Your task to perform on an android device: Open calendar and show me the second week of next month Image 0: 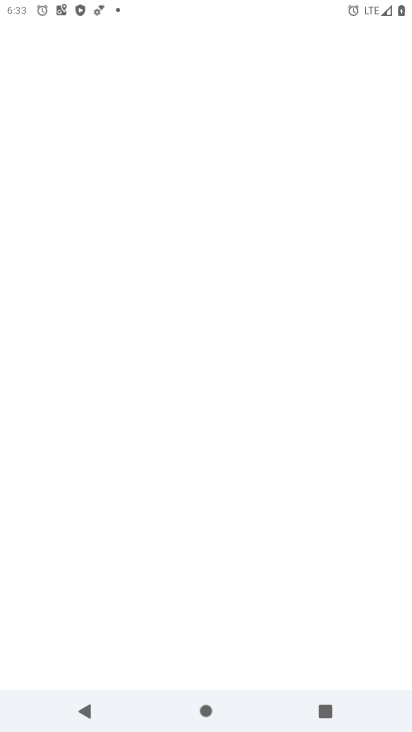
Step 0: drag from (192, 543) to (211, 49)
Your task to perform on an android device: Open calendar and show me the second week of next month Image 1: 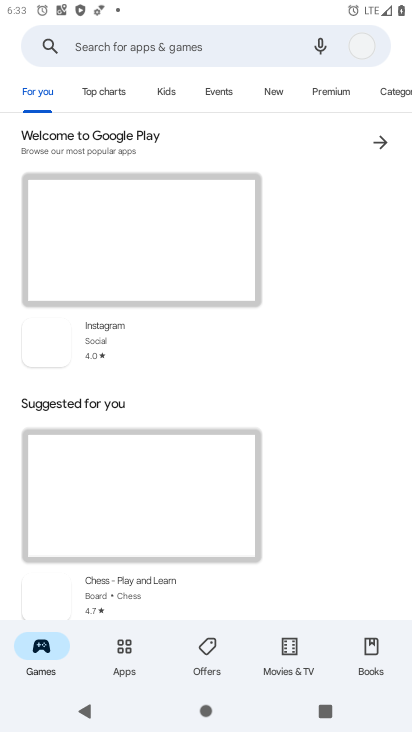
Step 1: press home button
Your task to perform on an android device: Open calendar and show me the second week of next month Image 2: 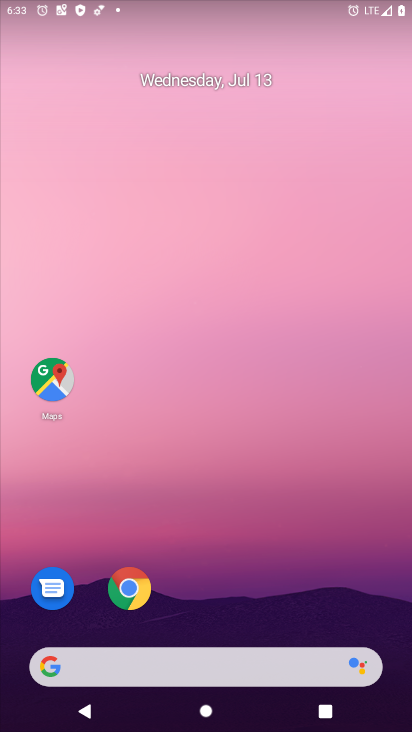
Step 2: drag from (198, 542) to (199, 69)
Your task to perform on an android device: Open calendar and show me the second week of next month Image 3: 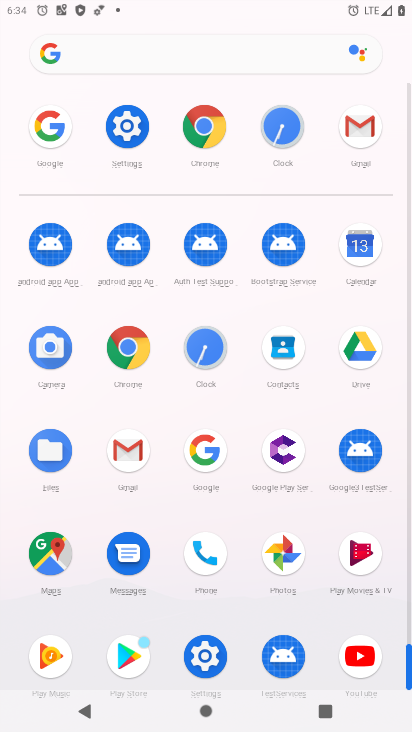
Step 3: click (362, 270)
Your task to perform on an android device: Open calendar and show me the second week of next month Image 4: 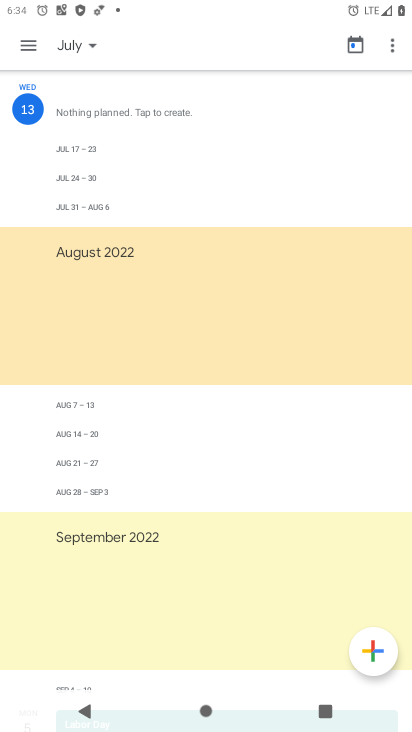
Step 4: click (33, 40)
Your task to perform on an android device: Open calendar and show me the second week of next month Image 5: 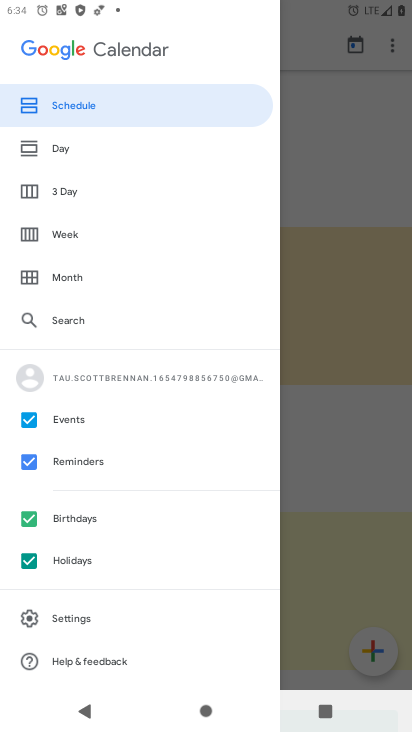
Step 5: click (65, 235)
Your task to perform on an android device: Open calendar and show me the second week of next month Image 6: 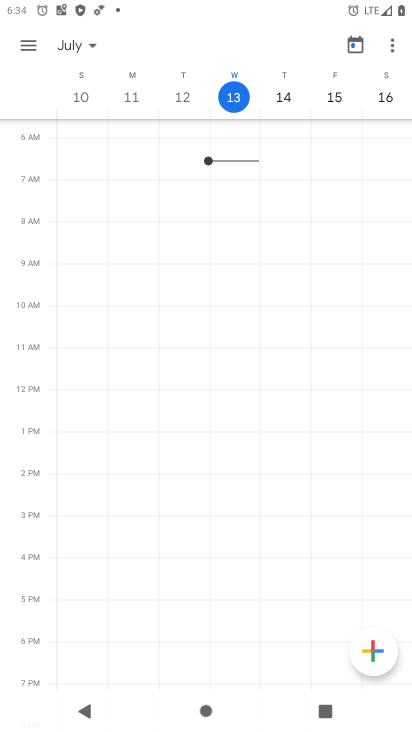
Step 6: click (78, 47)
Your task to perform on an android device: Open calendar and show me the second week of next month Image 7: 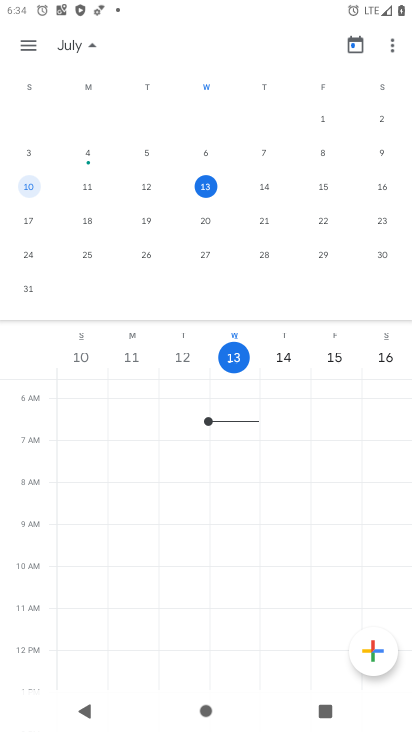
Step 7: drag from (274, 209) to (8, 209)
Your task to perform on an android device: Open calendar and show me the second week of next month Image 8: 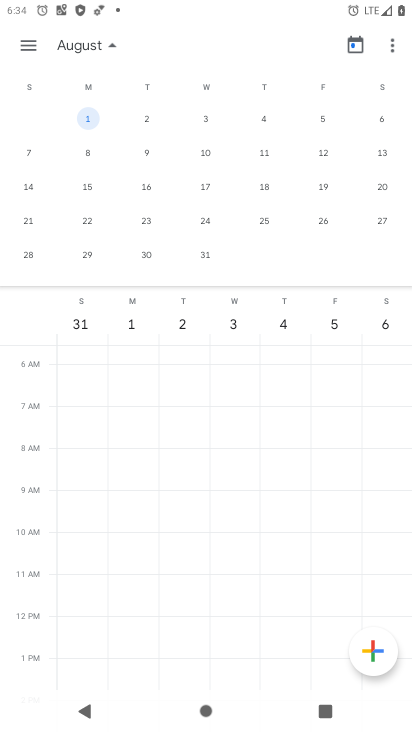
Step 8: click (30, 160)
Your task to perform on an android device: Open calendar and show me the second week of next month Image 9: 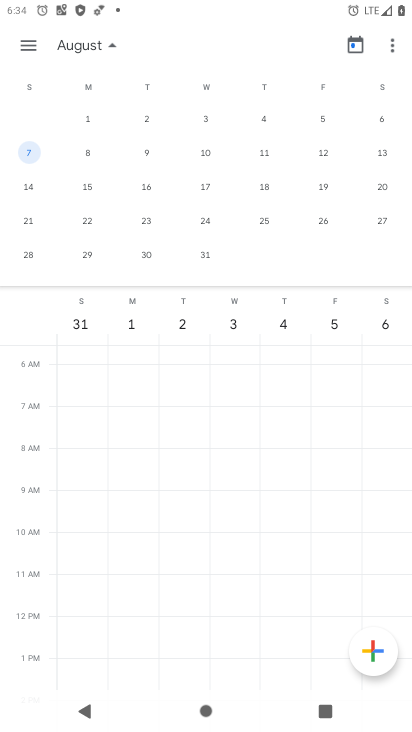
Step 9: click (30, 160)
Your task to perform on an android device: Open calendar and show me the second week of next month Image 10: 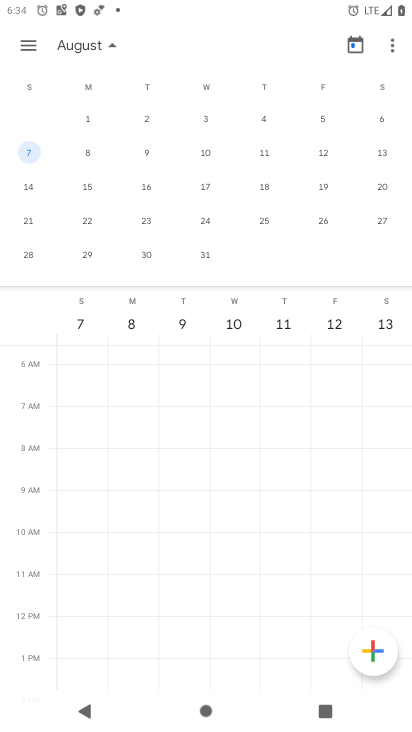
Step 10: task complete